Your task to perform on an android device: open chrome privacy settings Image 0: 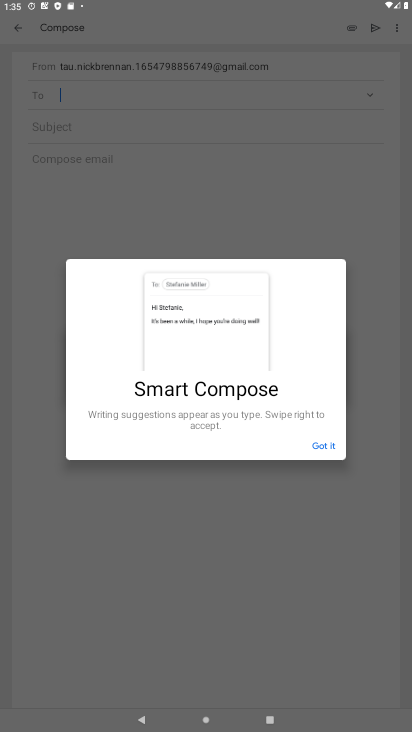
Step 0: press home button
Your task to perform on an android device: open chrome privacy settings Image 1: 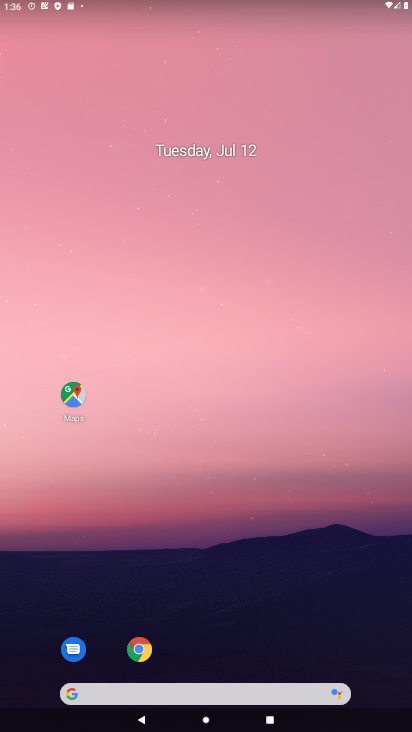
Step 1: drag from (293, 560) to (272, 65)
Your task to perform on an android device: open chrome privacy settings Image 2: 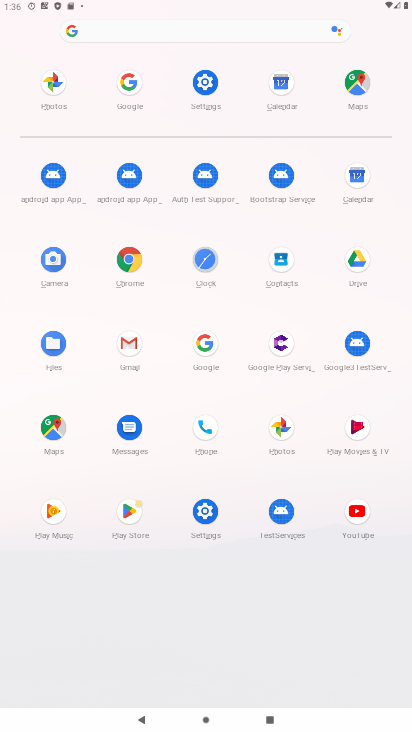
Step 2: click (134, 255)
Your task to perform on an android device: open chrome privacy settings Image 3: 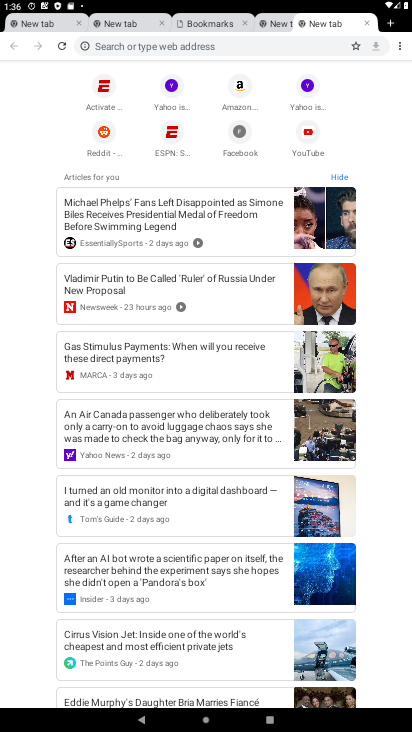
Step 3: click (398, 49)
Your task to perform on an android device: open chrome privacy settings Image 4: 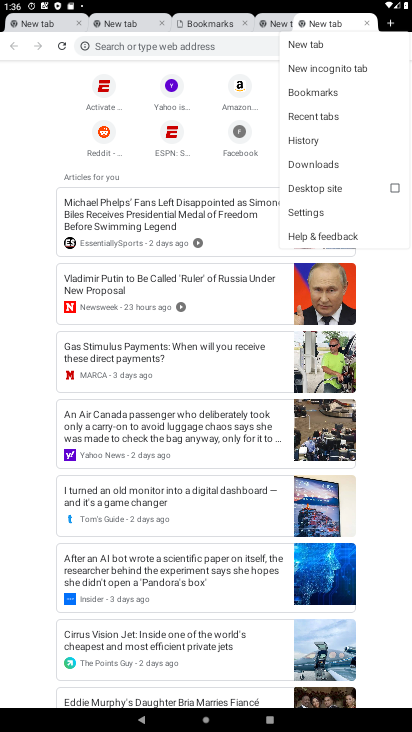
Step 4: click (314, 209)
Your task to perform on an android device: open chrome privacy settings Image 5: 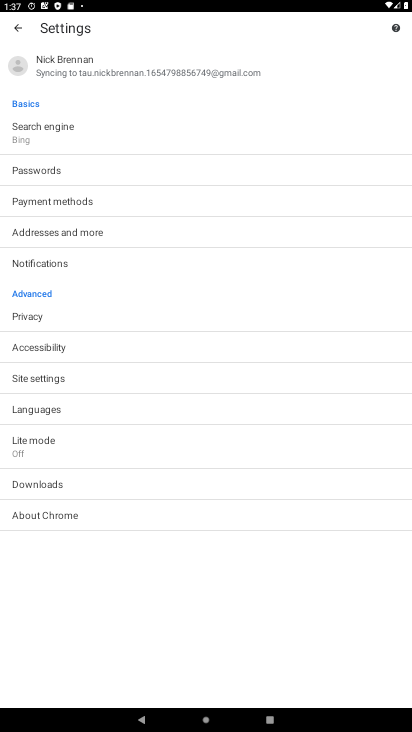
Step 5: click (24, 328)
Your task to perform on an android device: open chrome privacy settings Image 6: 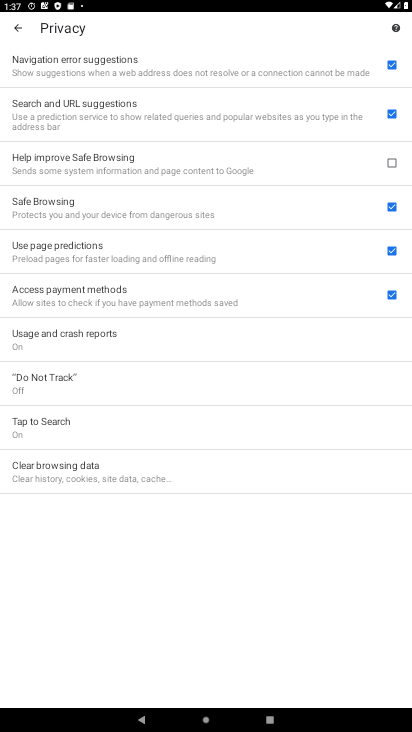
Step 6: task complete